Your task to perform on an android device: Open Chrome and go to settings Image 0: 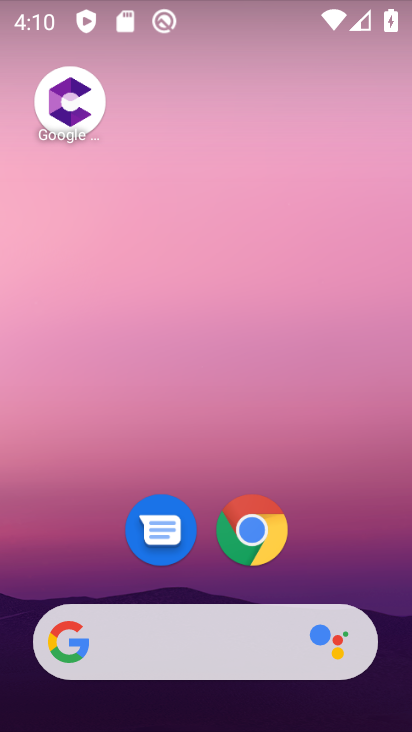
Step 0: drag from (371, 585) to (319, 126)
Your task to perform on an android device: Open Chrome and go to settings Image 1: 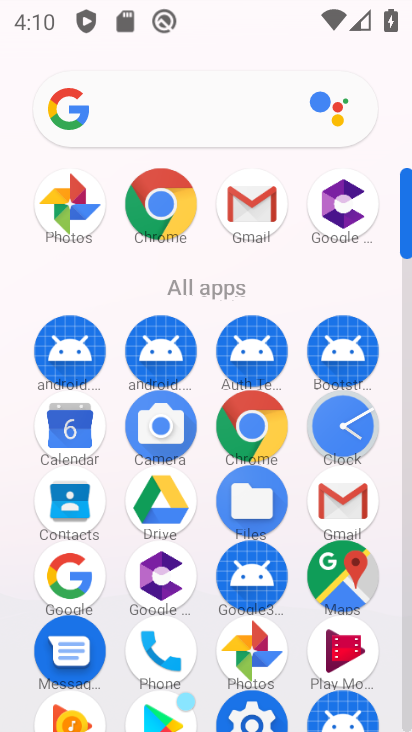
Step 1: click (148, 207)
Your task to perform on an android device: Open Chrome and go to settings Image 2: 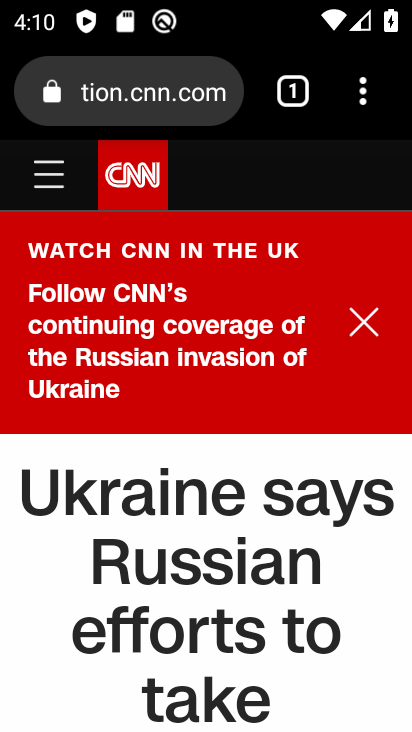
Step 2: task complete